Your task to perform on an android device: change the clock display to digital Image 0: 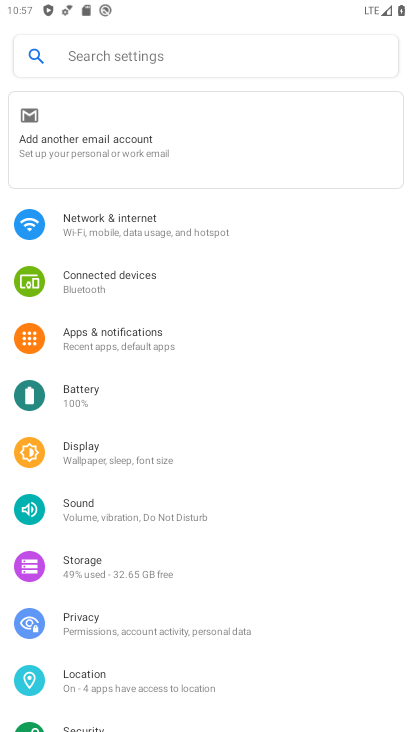
Step 0: press home button
Your task to perform on an android device: change the clock display to digital Image 1: 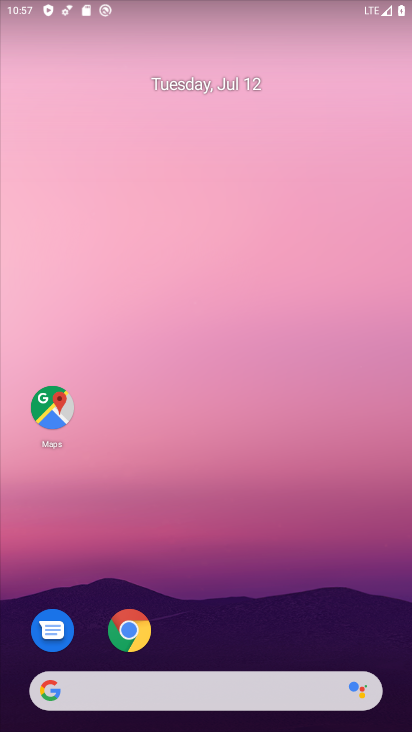
Step 1: drag from (396, 703) to (210, 74)
Your task to perform on an android device: change the clock display to digital Image 2: 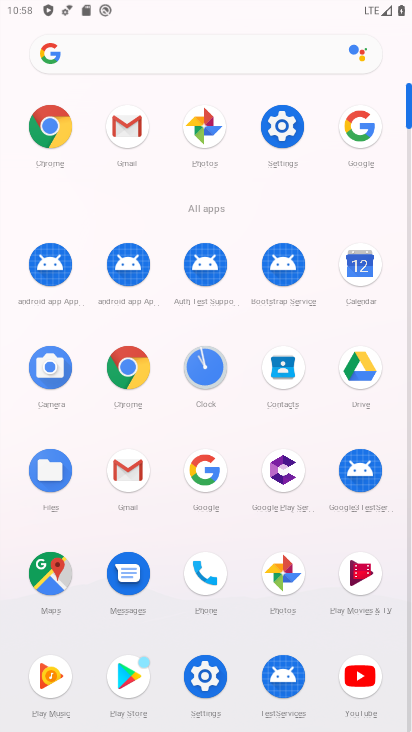
Step 2: click (208, 386)
Your task to perform on an android device: change the clock display to digital Image 3: 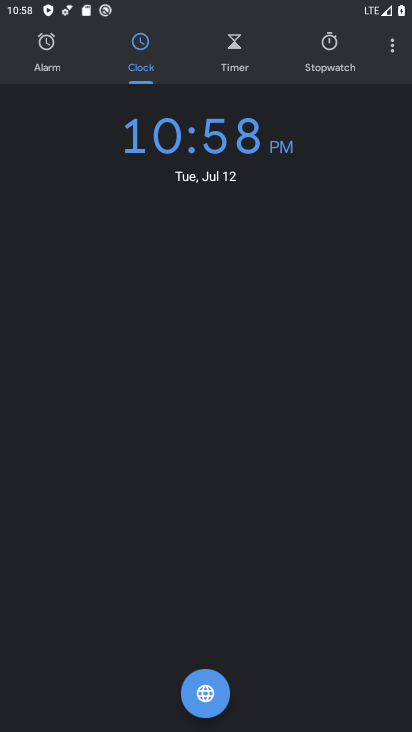
Step 3: click (388, 47)
Your task to perform on an android device: change the clock display to digital Image 4: 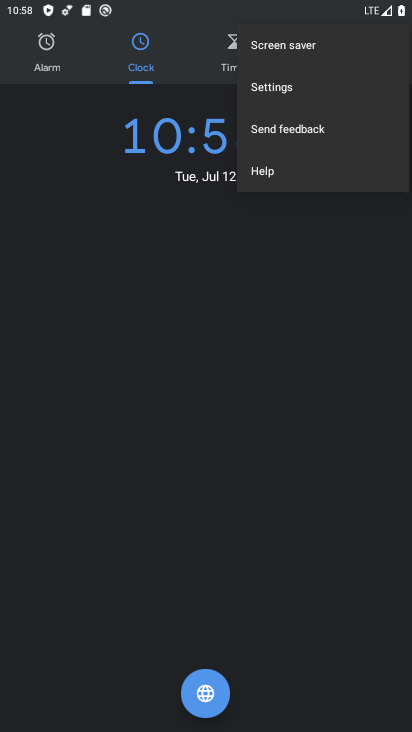
Step 4: click (309, 85)
Your task to perform on an android device: change the clock display to digital Image 5: 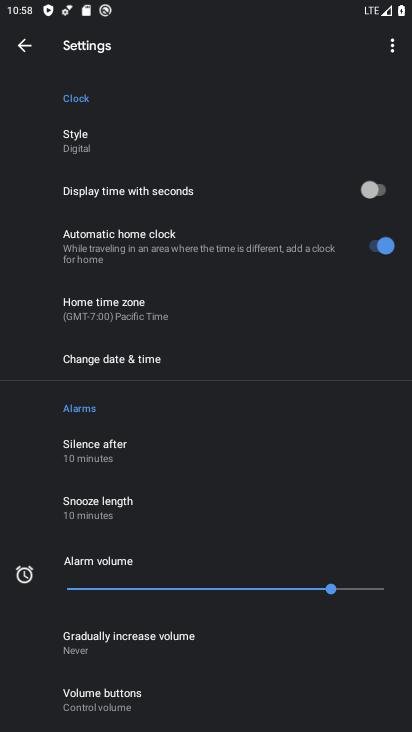
Step 5: click (120, 146)
Your task to perform on an android device: change the clock display to digital Image 6: 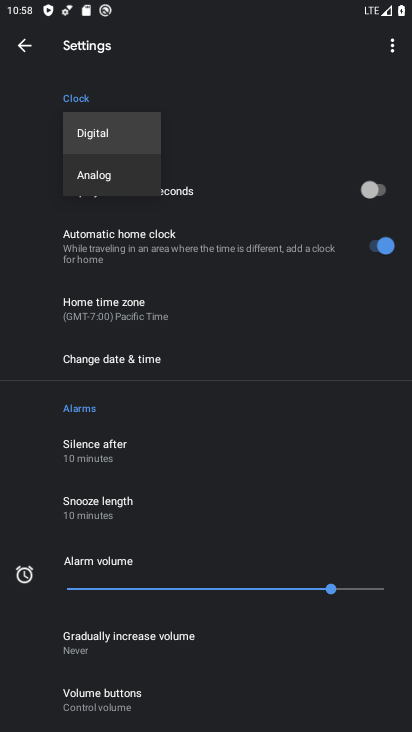
Step 6: click (111, 139)
Your task to perform on an android device: change the clock display to digital Image 7: 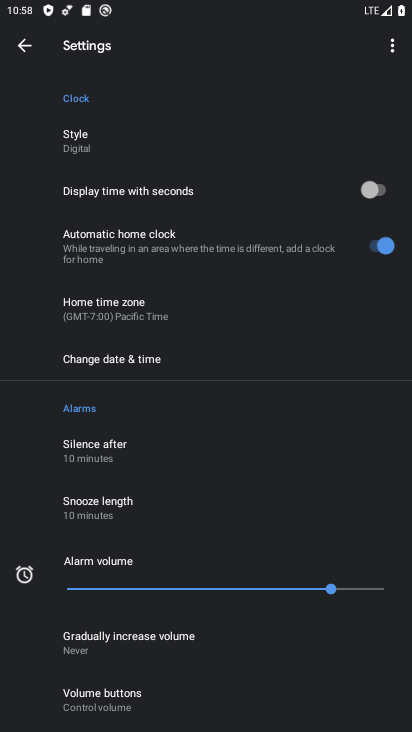
Step 7: task complete